Your task to perform on an android device: find which apps use the phone's location Image 0: 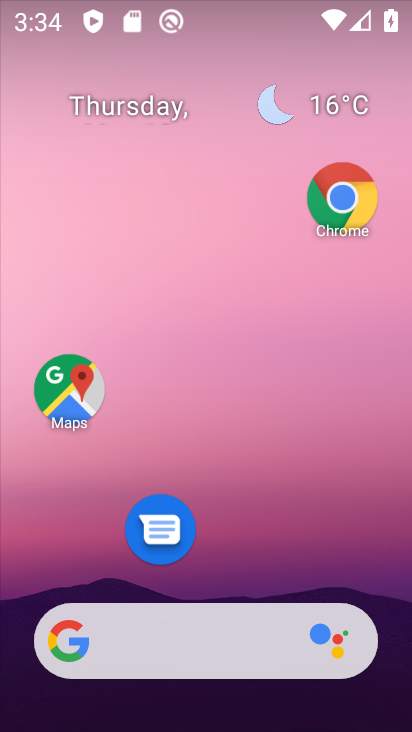
Step 0: drag from (191, 575) to (195, 33)
Your task to perform on an android device: find which apps use the phone's location Image 1: 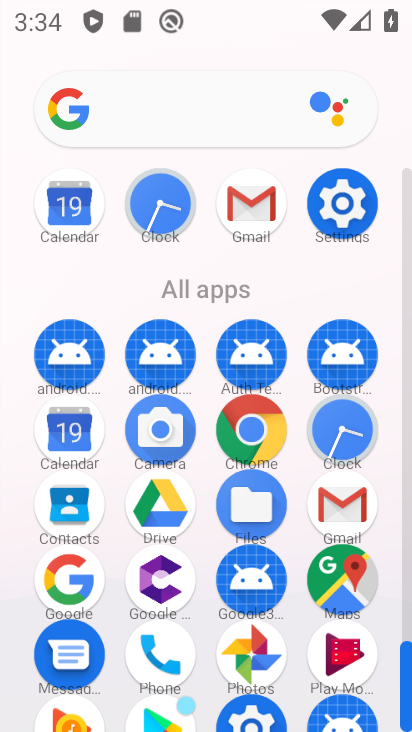
Step 1: click (327, 192)
Your task to perform on an android device: find which apps use the phone's location Image 2: 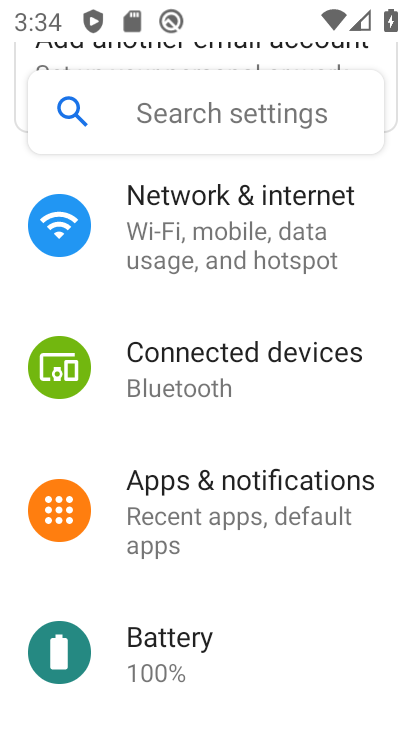
Step 2: drag from (250, 592) to (235, 117)
Your task to perform on an android device: find which apps use the phone's location Image 3: 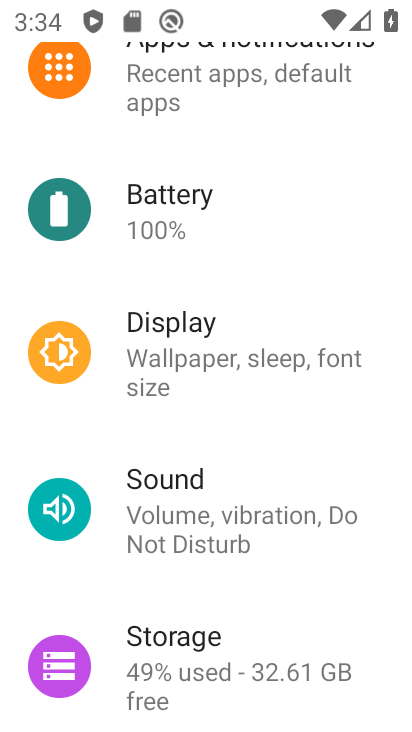
Step 3: drag from (245, 591) to (218, 236)
Your task to perform on an android device: find which apps use the phone's location Image 4: 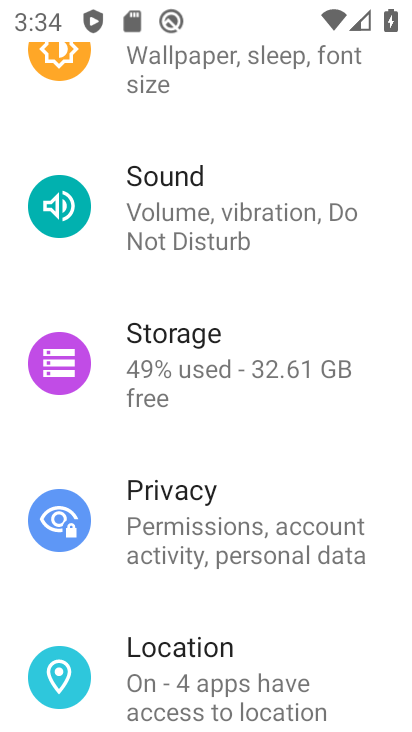
Step 4: click (194, 635)
Your task to perform on an android device: find which apps use the phone's location Image 5: 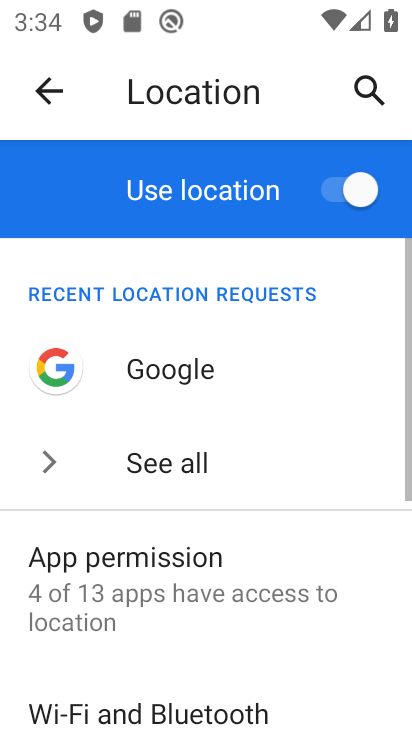
Step 5: click (203, 607)
Your task to perform on an android device: find which apps use the phone's location Image 6: 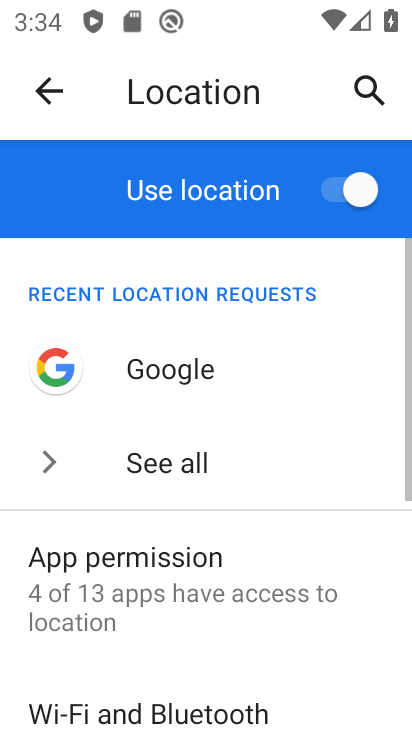
Step 6: task complete